Your task to perform on an android device: open the mobile data screen to see how much data has been used Image 0: 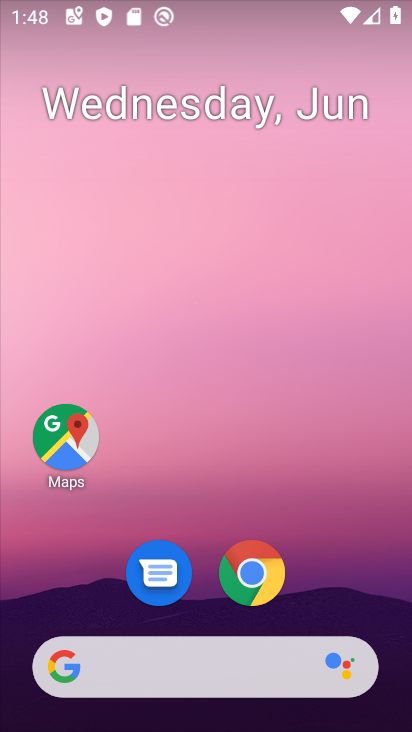
Step 0: click (311, 140)
Your task to perform on an android device: open the mobile data screen to see how much data has been used Image 1: 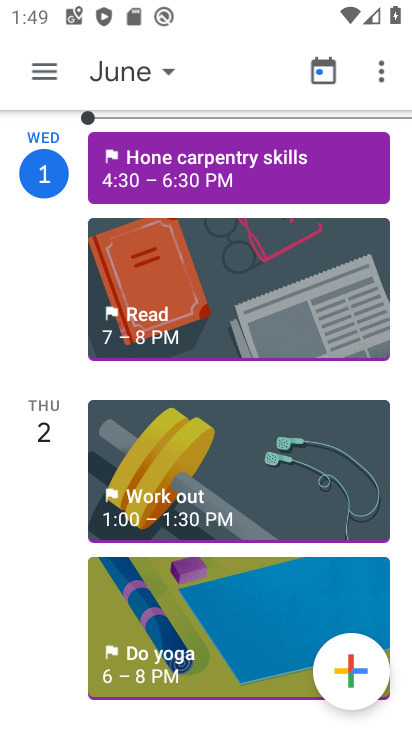
Step 1: press home button
Your task to perform on an android device: open the mobile data screen to see how much data has been used Image 2: 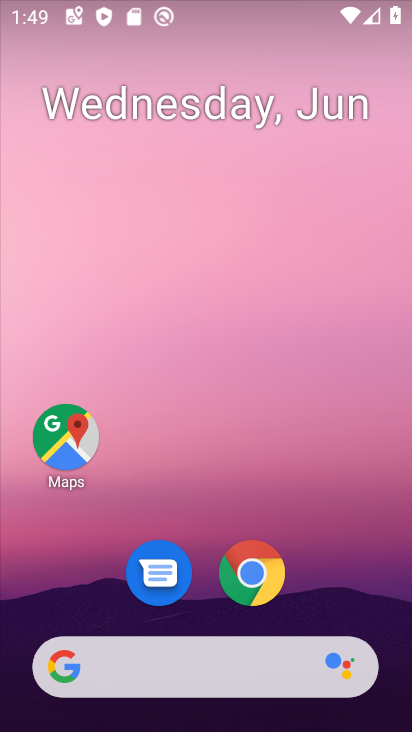
Step 2: drag from (298, 579) to (291, 107)
Your task to perform on an android device: open the mobile data screen to see how much data has been used Image 3: 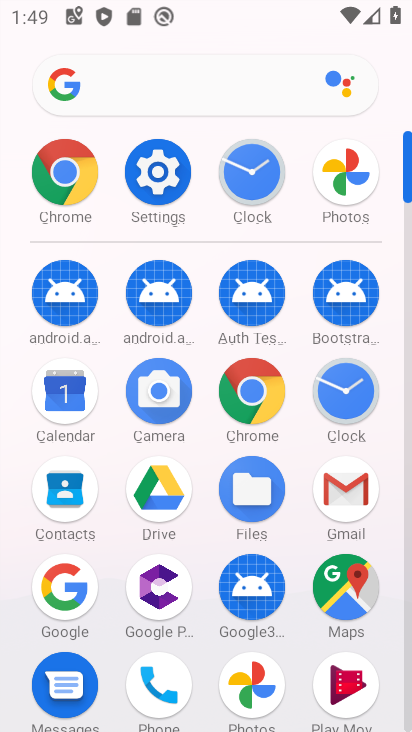
Step 3: click (155, 155)
Your task to perform on an android device: open the mobile data screen to see how much data has been used Image 4: 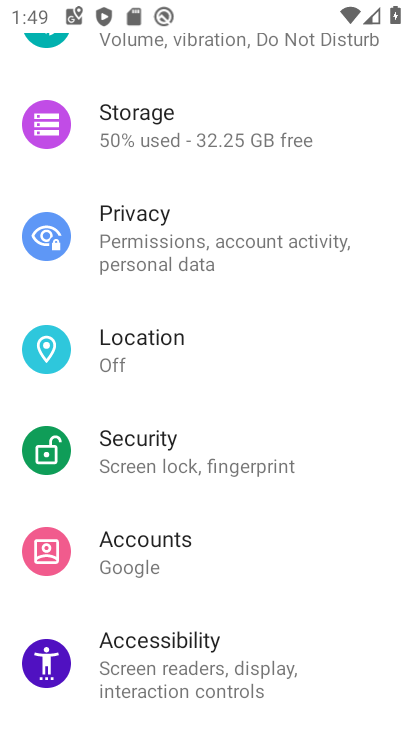
Step 4: drag from (197, 141) to (245, 479)
Your task to perform on an android device: open the mobile data screen to see how much data has been used Image 5: 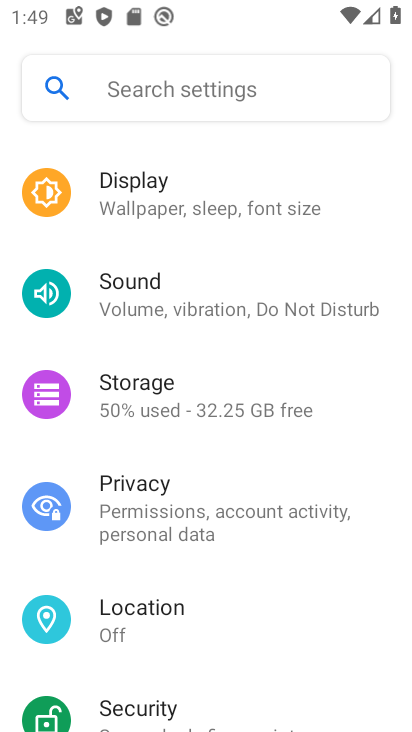
Step 5: drag from (206, 266) to (218, 461)
Your task to perform on an android device: open the mobile data screen to see how much data has been used Image 6: 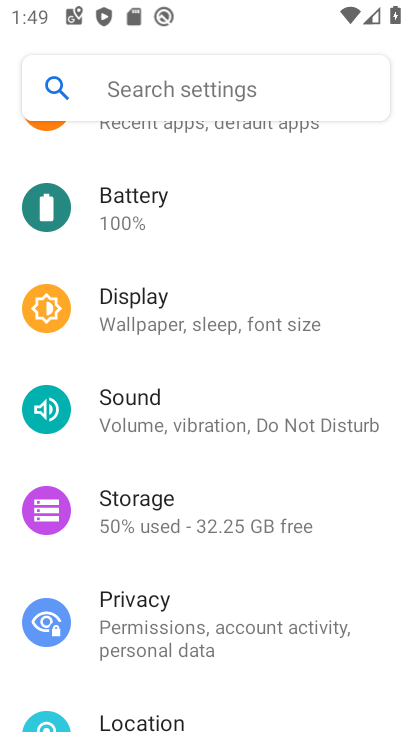
Step 6: drag from (210, 187) to (229, 538)
Your task to perform on an android device: open the mobile data screen to see how much data has been used Image 7: 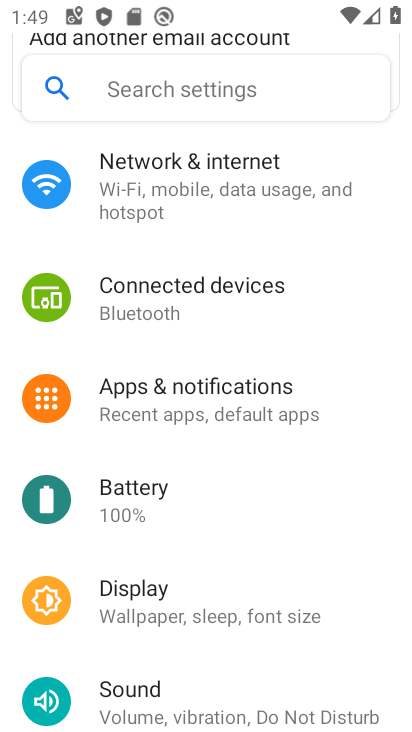
Step 7: click (191, 209)
Your task to perform on an android device: open the mobile data screen to see how much data has been used Image 8: 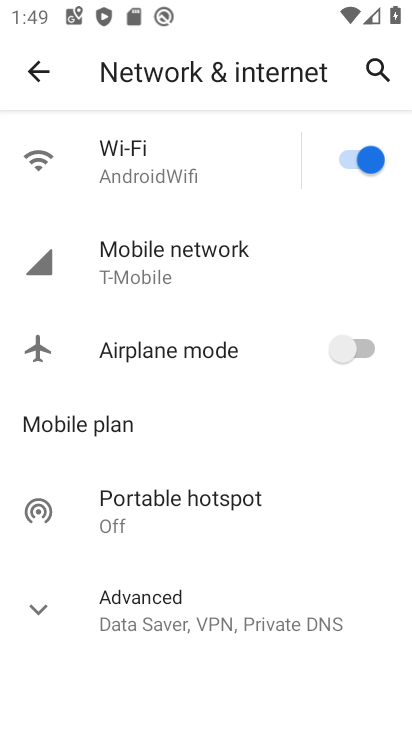
Step 8: click (180, 246)
Your task to perform on an android device: open the mobile data screen to see how much data has been used Image 9: 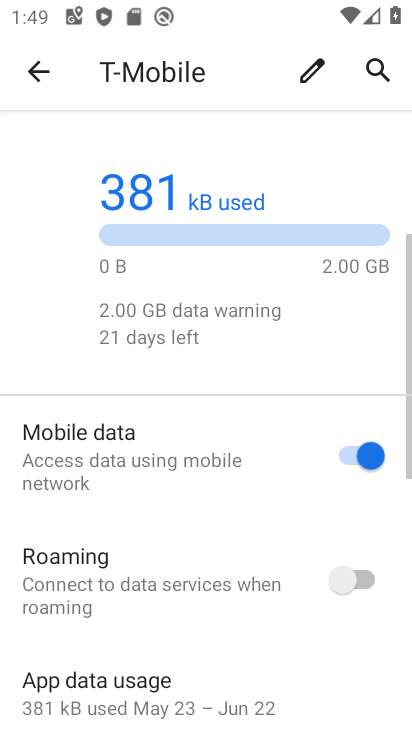
Step 9: task complete